Your task to perform on an android device: check google app version Image 0: 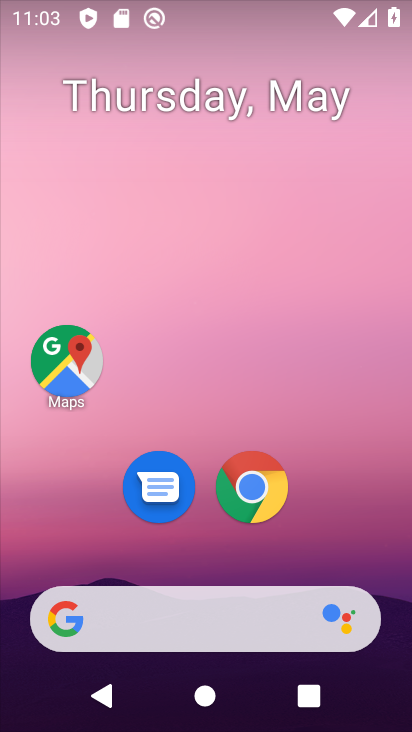
Step 0: drag from (368, 549) to (318, 3)
Your task to perform on an android device: check google app version Image 1: 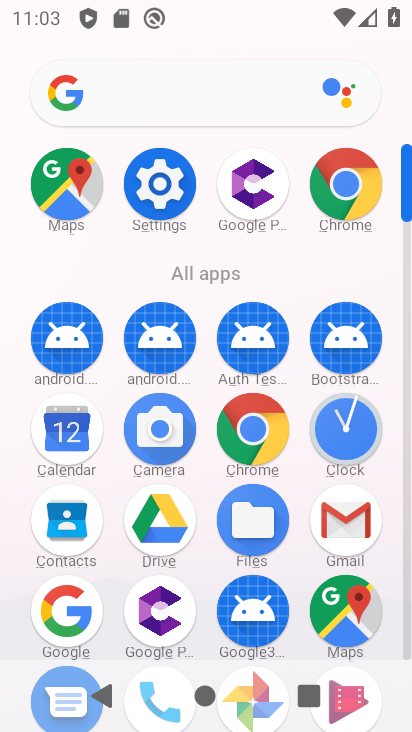
Step 1: drag from (404, 579) to (383, 246)
Your task to perform on an android device: check google app version Image 2: 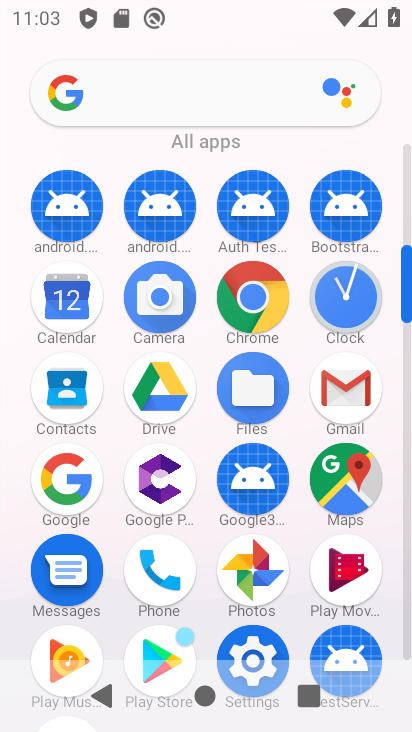
Step 2: click (62, 469)
Your task to perform on an android device: check google app version Image 3: 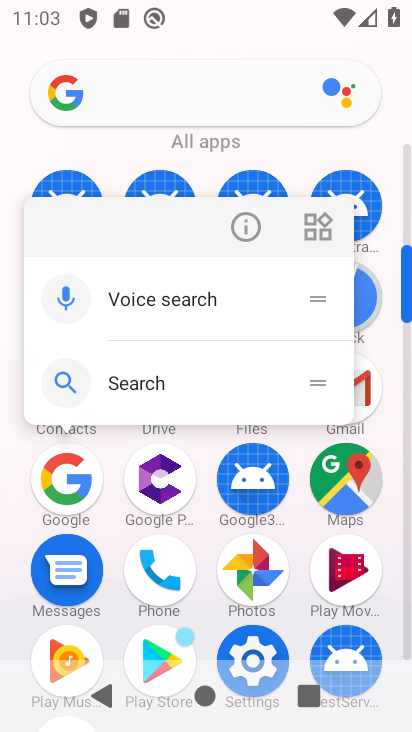
Step 3: click (61, 475)
Your task to perform on an android device: check google app version Image 4: 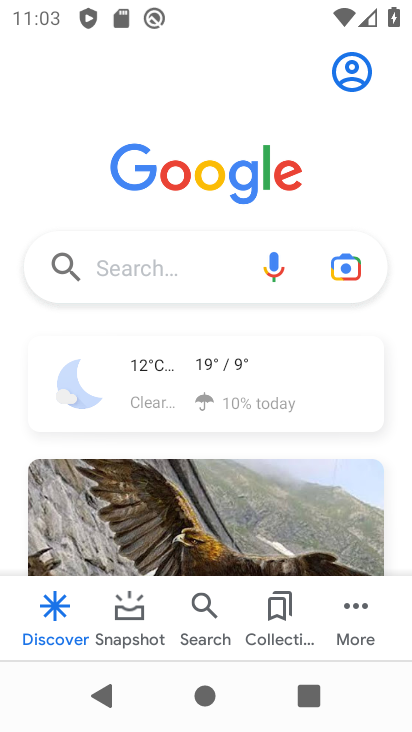
Step 4: click (359, 612)
Your task to perform on an android device: check google app version Image 5: 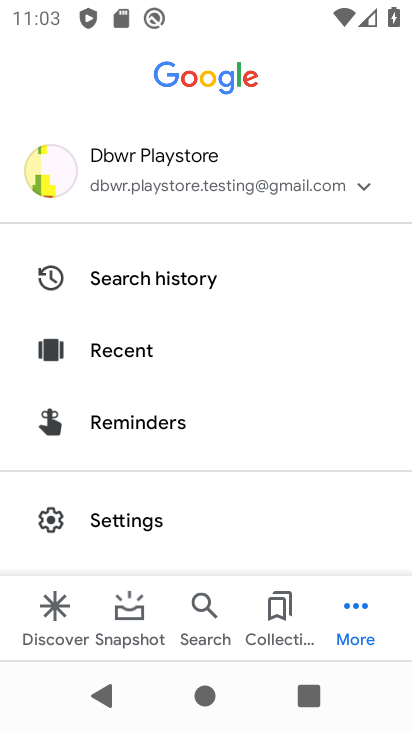
Step 5: click (98, 532)
Your task to perform on an android device: check google app version Image 6: 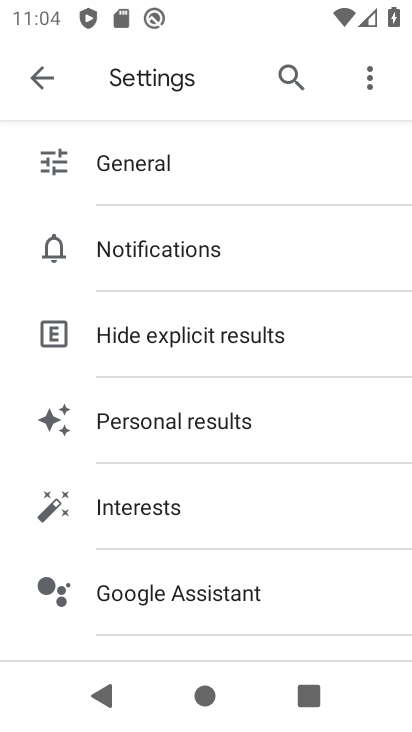
Step 6: drag from (285, 244) to (213, 567)
Your task to perform on an android device: check google app version Image 7: 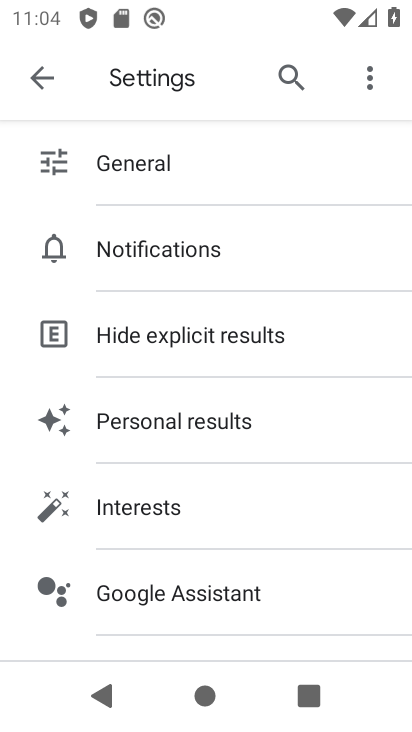
Step 7: drag from (238, 549) to (242, 88)
Your task to perform on an android device: check google app version Image 8: 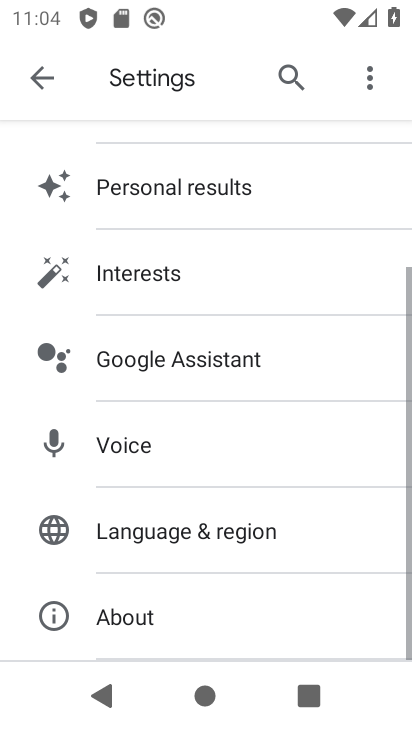
Step 8: click (153, 616)
Your task to perform on an android device: check google app version Image 9: 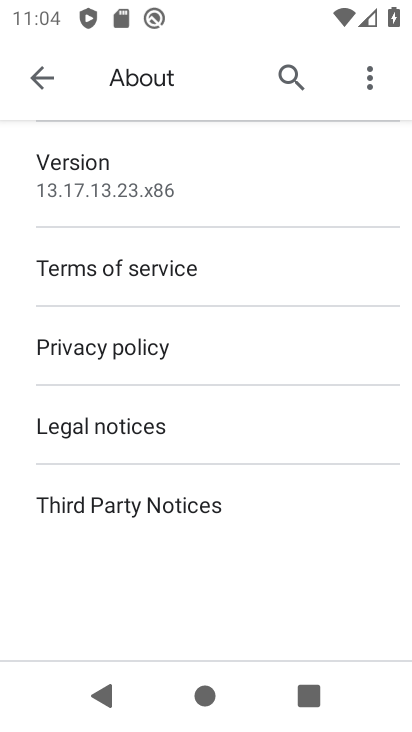
Step 9: click (64, 180)
Your task to perform on an android device: check google app version Image 10: 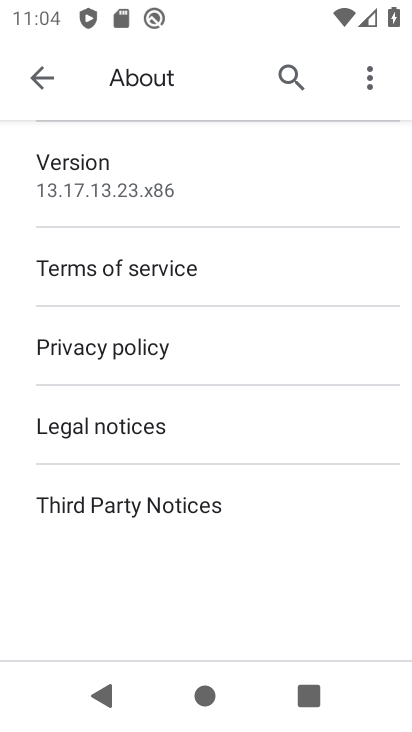
Step 10: click (69, 168)
Your task to perform on an android device: check google app version Image 11: 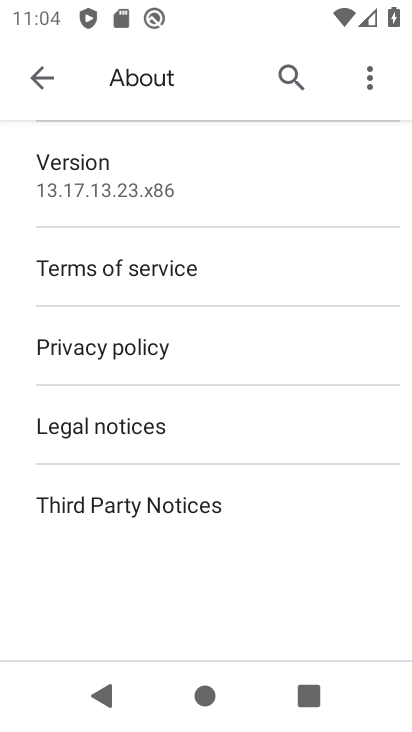
Step 11: task complete